Your task to perform on an android device: Show the shopping cart on costco.com. Search for "asus rog" on costco.com, select the first entry, and add it to the cart. Image 0: 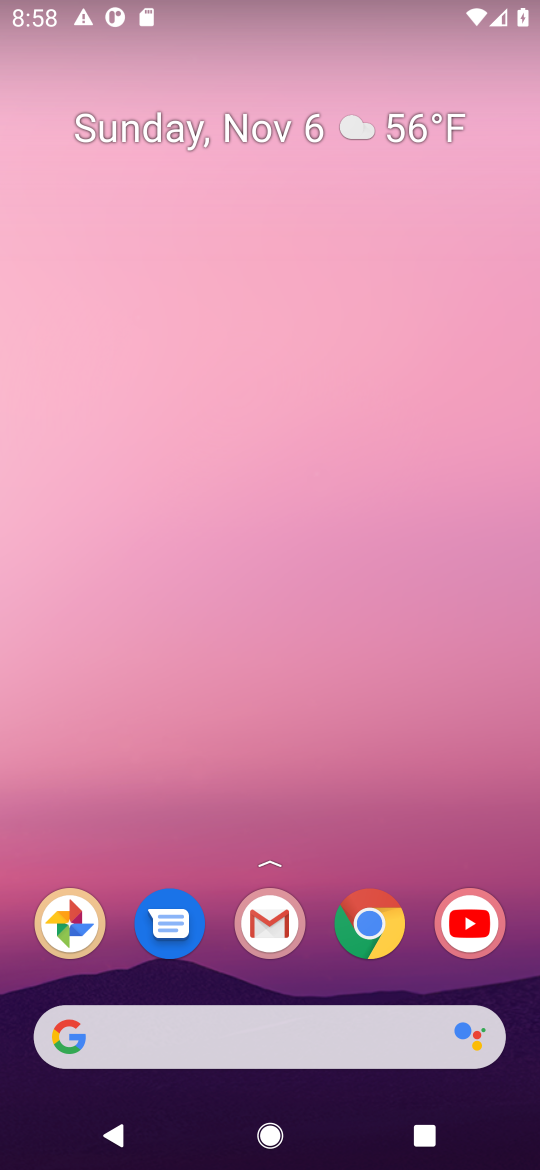
Step 0: click (369, 927)
Your task to perform on an android device: Show the shopping cart on costco.com. Search for "asus rog" on costco.com, select the first entry, and add it to the cart. Image 1: 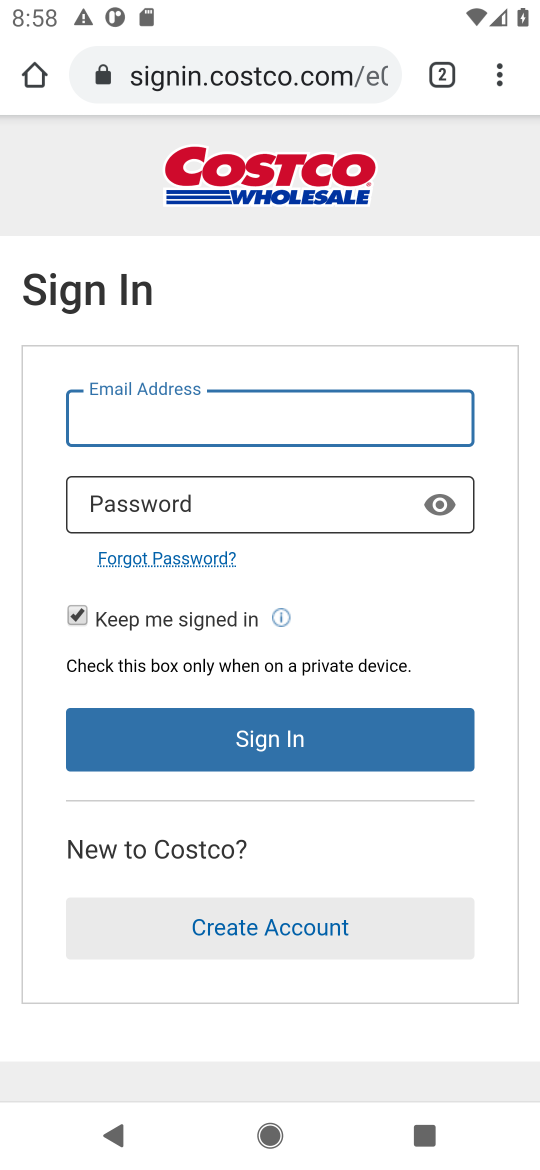
Step 1: press back button
Your task to perform on an android device: Show the shopping cart on costco.com. Search for "asus rog" on costco.com, select the first entry, and add it to the cart. Image 2: 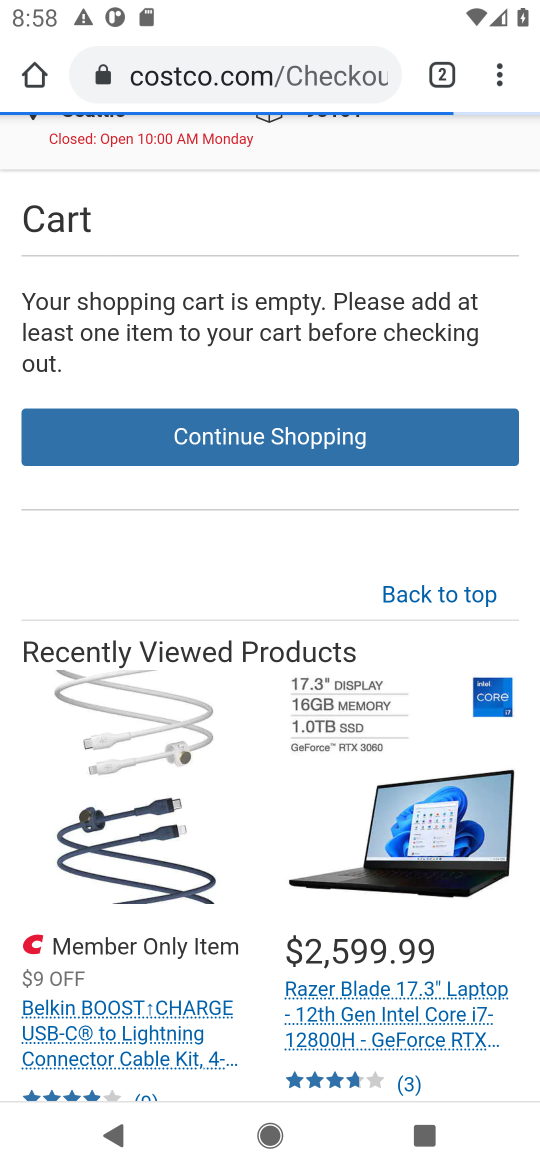
Step 2: drag from (466, 372) to (492, 741)
Your task to perform on an android device: Show the shopping cart on costco.com. Search for "asus rog" on costco.com, select the first entry, and add it to the cart. Image 3: 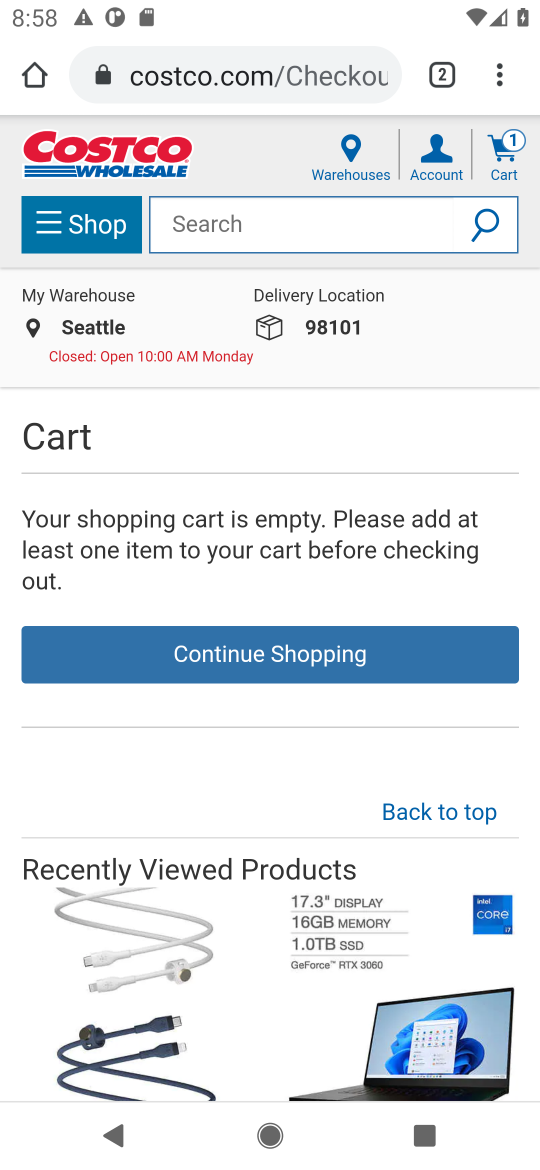
Step 3: click (493, 152)
Your task to perform on an android device: Show the shopping cart on costco.com. Search for "asus rog" on costco.com, select the first entry, and add it to the cart. Image 4: 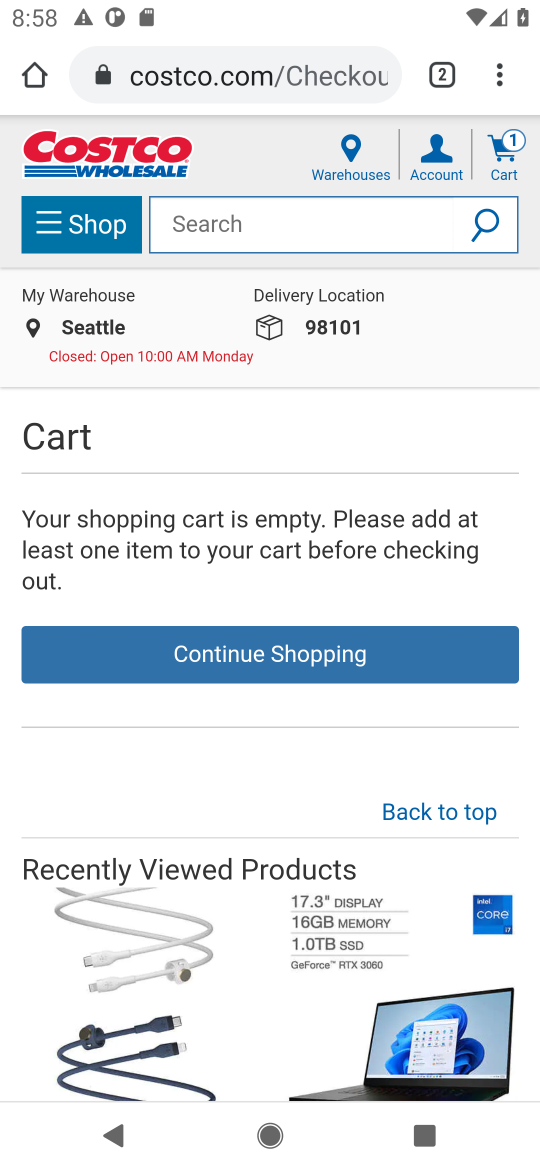
Step 4: click (510, 150)
Your task to perform on an android device: Show the shopping cart on costco.com. Search for "asus rog" on costco.com, select the first entry, and add it to the cart. Image 5: 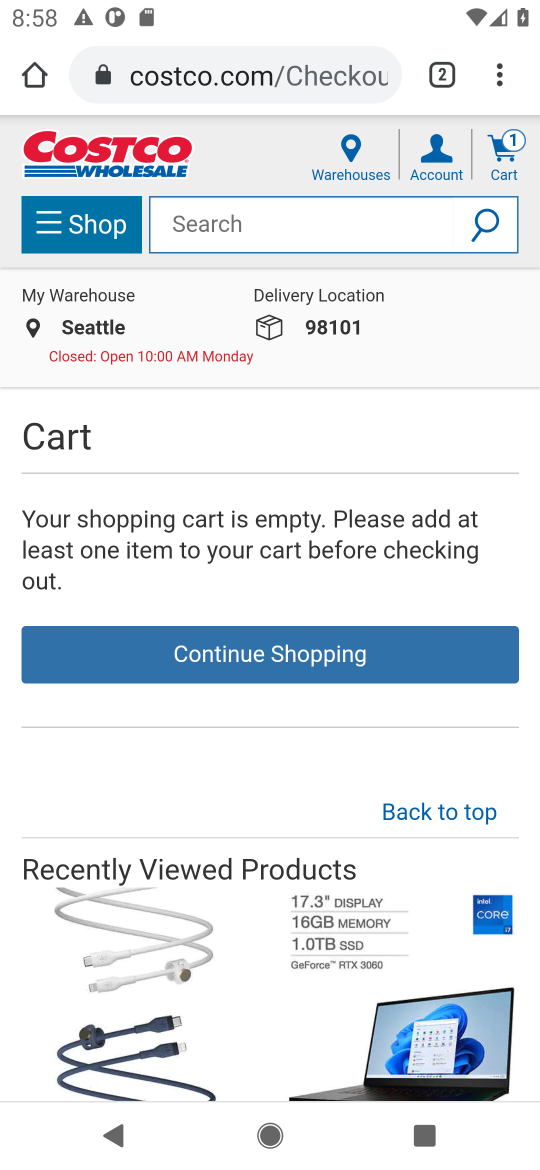
Step 5: click (232, 227)
Your task to perform on an android device: Show the shopping cart on costco.com. Search for "asus rog" on costco.com, select the first entry, and add it to the cart. Image 6: 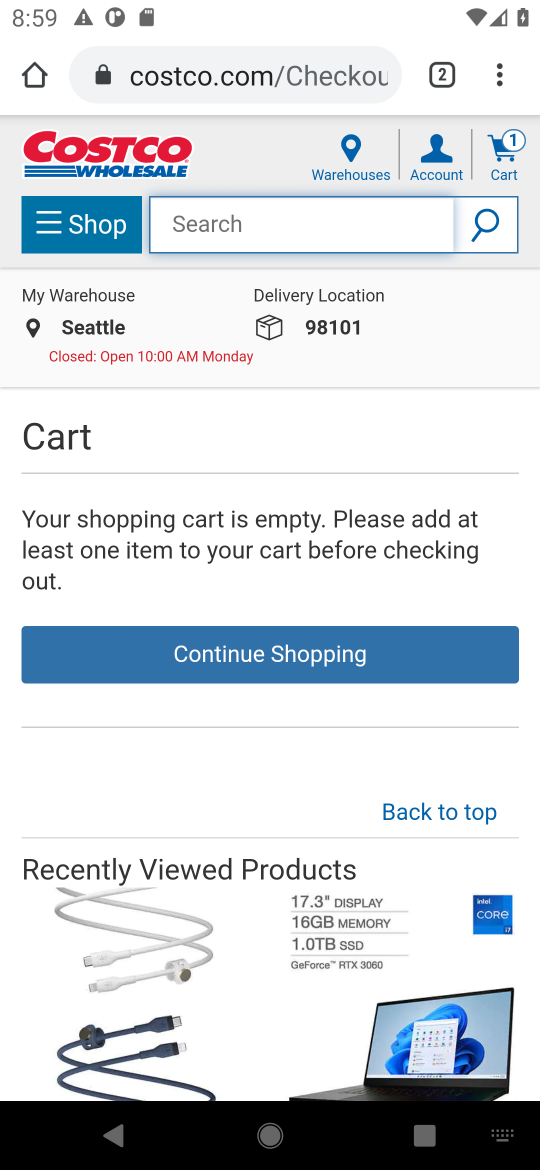
Step 6: type "asus rog"
Your task to perform on an android device: Show the shopping cart on costco.com. Search for "asus rog" on costco.com, select the first entry, and add it to the cart. Image 7: 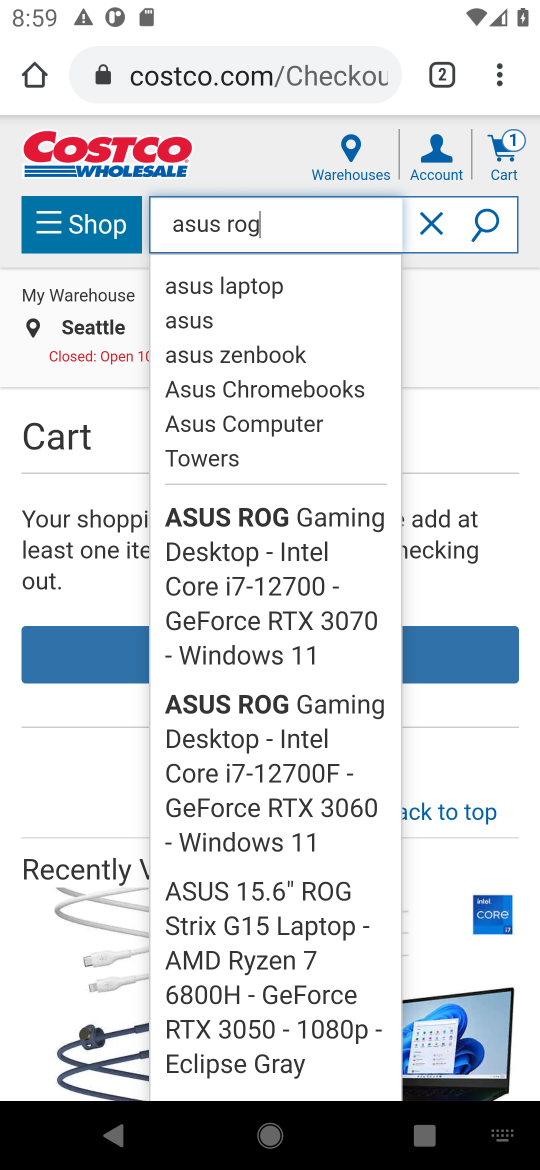
Step 7: click (491, 224)
Your task to perform on an android device: Show the shopping cart on costco.com. Search for "asus rog" on costco.com, select the first entry, and add it to the cart. Image 8: 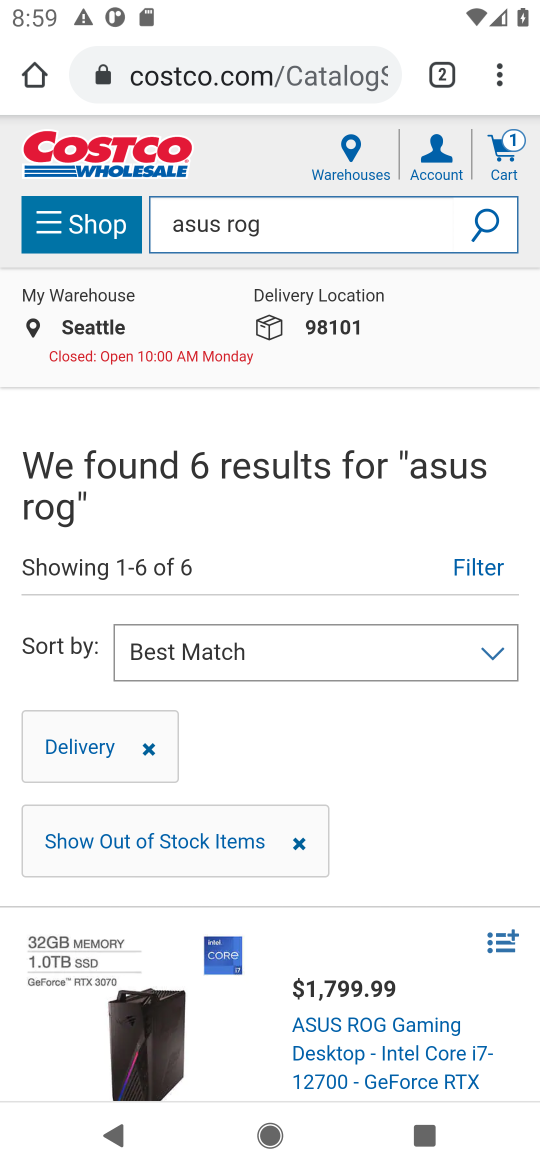
Step 8: drag from (395, 783) to (387, 368)
Your task to perform on an android device: Show the shopping cart on costco.com. Search for "asus rog" on costco.com, select the first entry, and add it to the cart. Image 9: 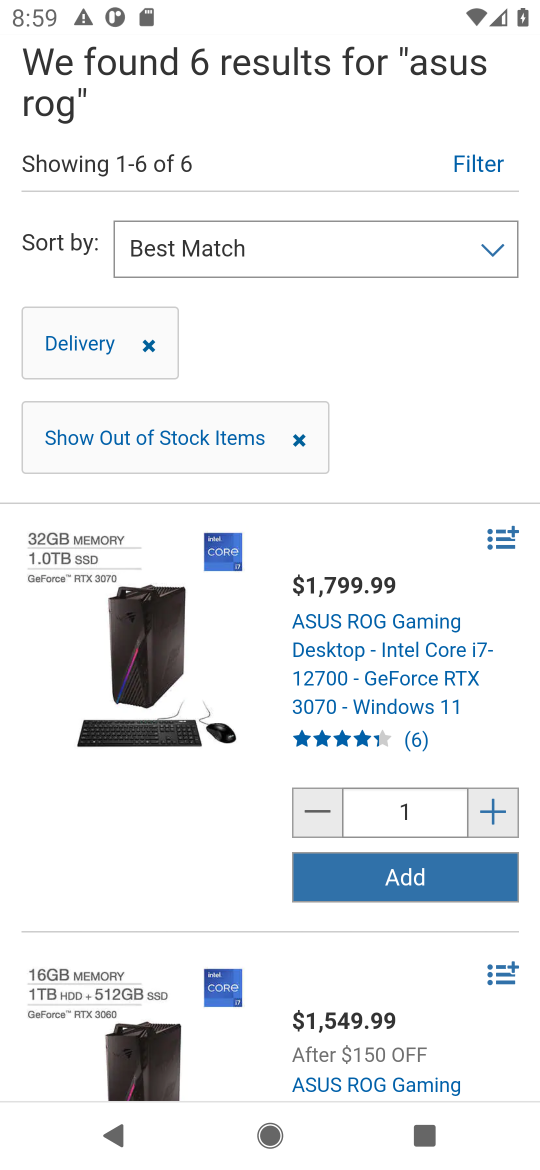
Step 9: click (379, 891)
Your task to perform on an android device: Show the shopping cart on costco.com. Search for "asus rog" on costco.com, select the first entry, and add it to the cart. Image 10: 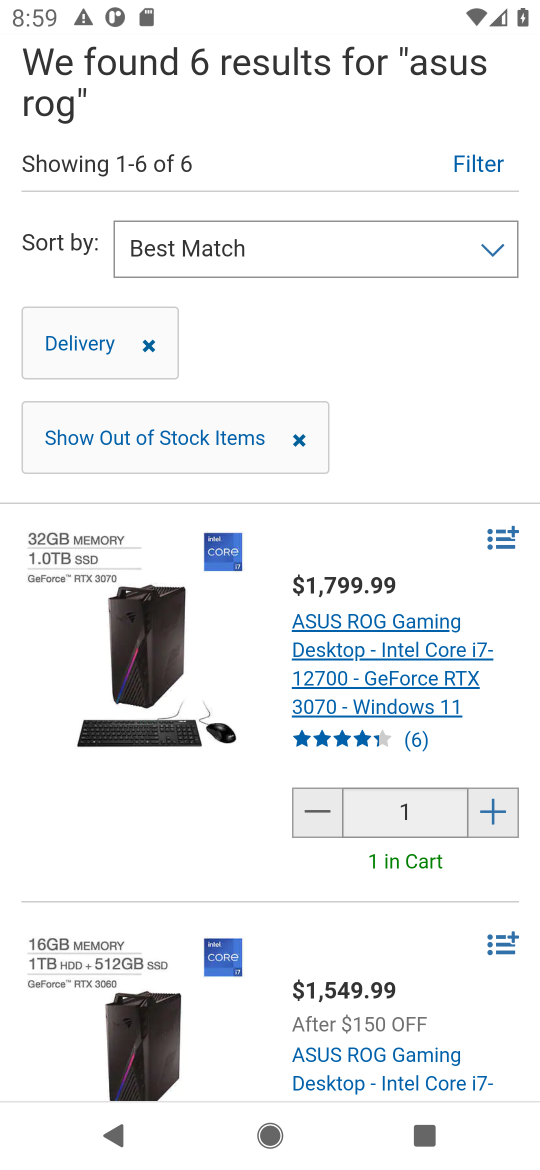
Step 10: task complete